Your task to perform on an android device: open app "Expedia: Hotels, Flights & Car" Image 0: 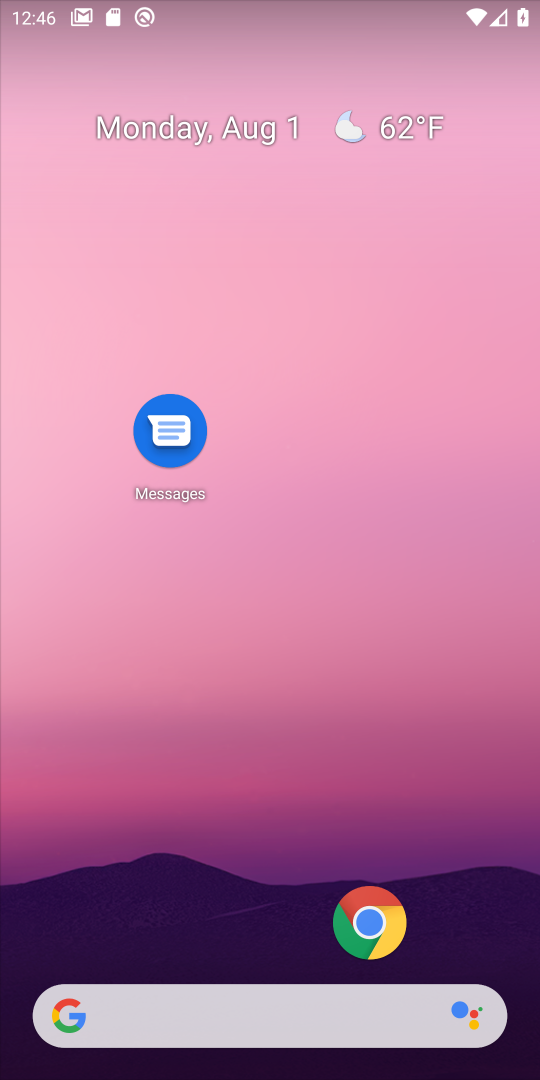
Step 0: drag from (229, 926) to (275, 262)
Your task to perform on an android device: open app "Expedia: Hotels, Flights & Car" Image 1: 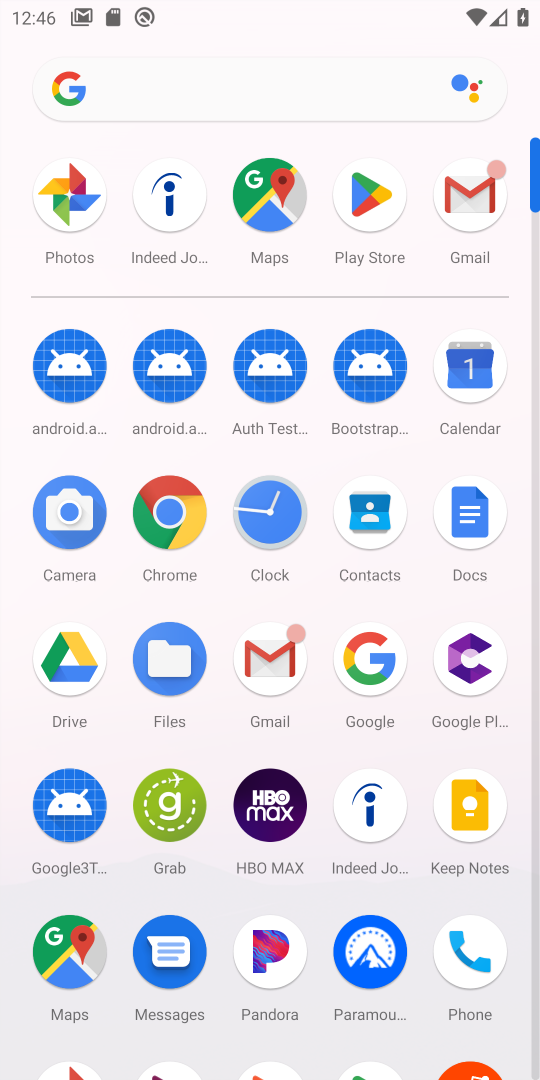
Step 1: click (339, 227)
Your task to perform on an android device: open app "Expedia: Hotels, Flights & Car" Image 2: 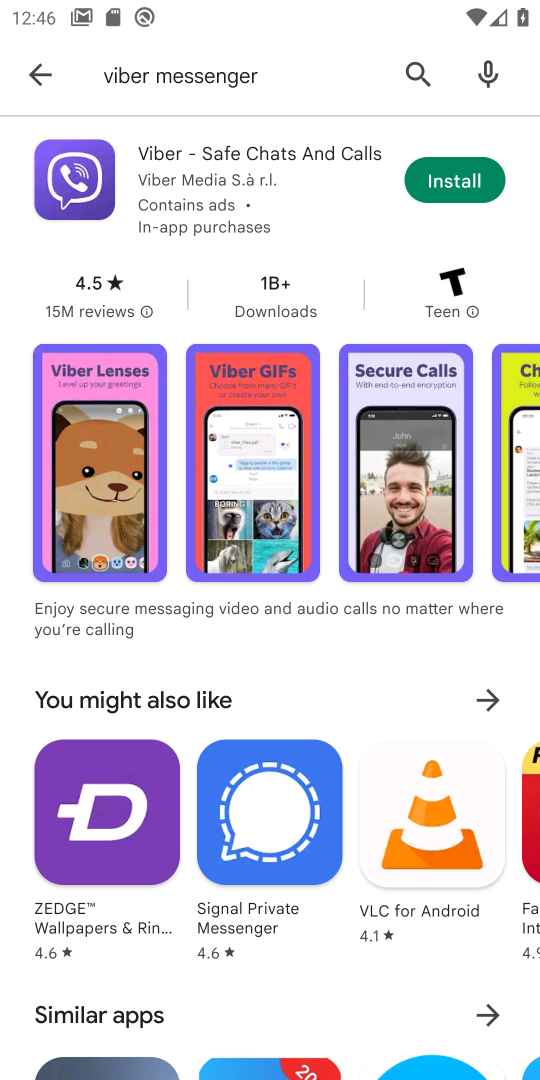
Step 2: click (424, 78)
Your task to perform on an android device: open app "Expedia: Hotels, Flights & Car" Image 3: 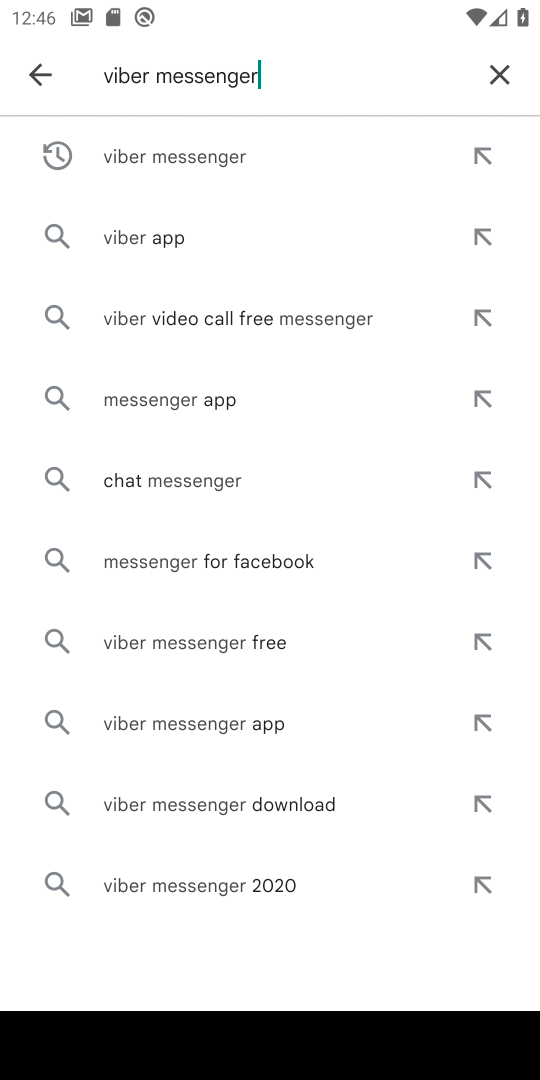
Step 3: click (485, 77)
Your task to perform on an android device: open app "Expedia: Hotels, Flights & Car" Image 4: 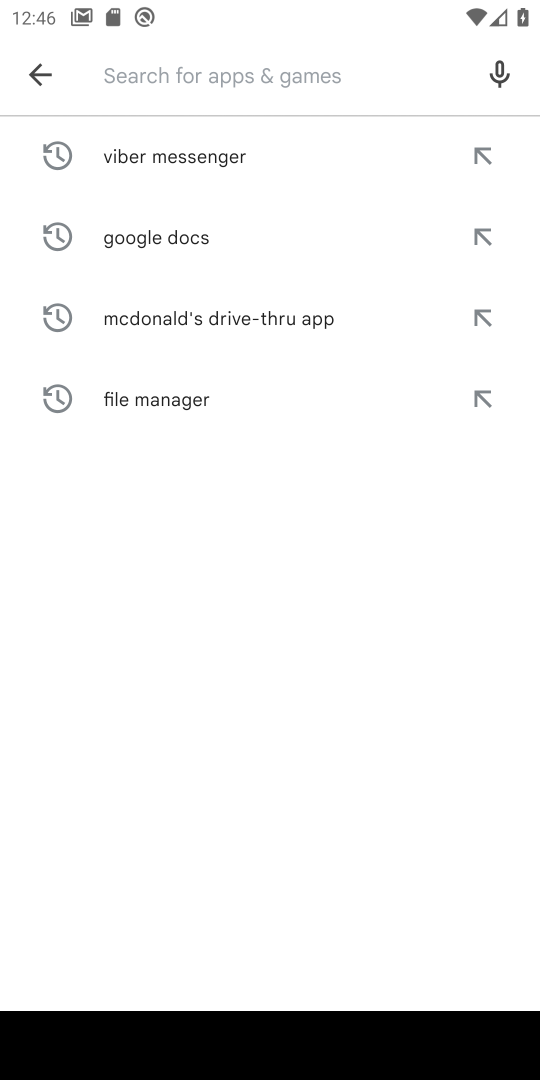
Step 4: type "Expedia: Hotels, Flights & Car"
Your task to perform on an android device: open app "Expedia: Hotels, Flights & Car" Image 5: 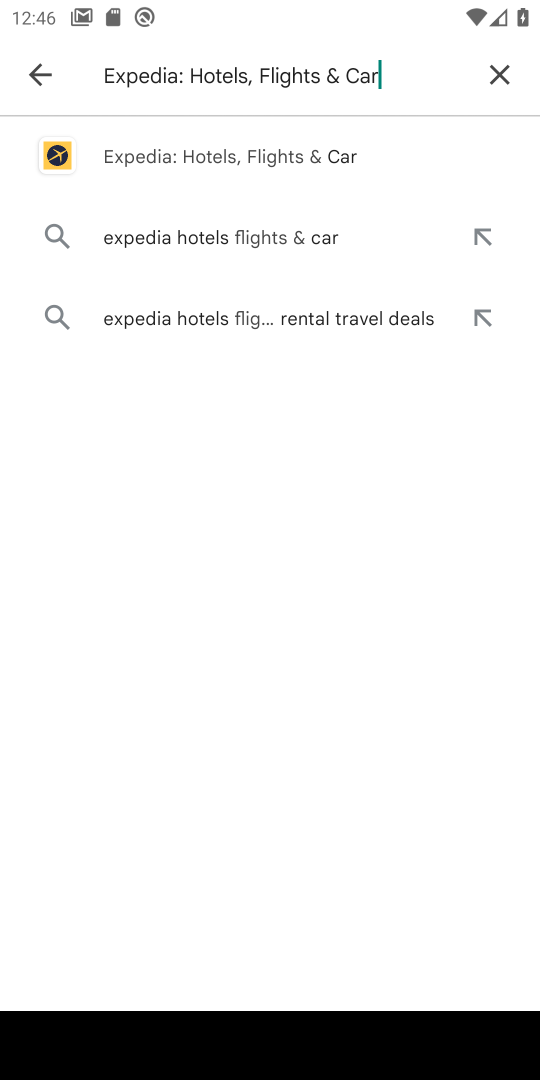
Step 5: type ""
Your task to perform on an android device: open app "Expedia: Hotels, Flights & Car" Image 6: 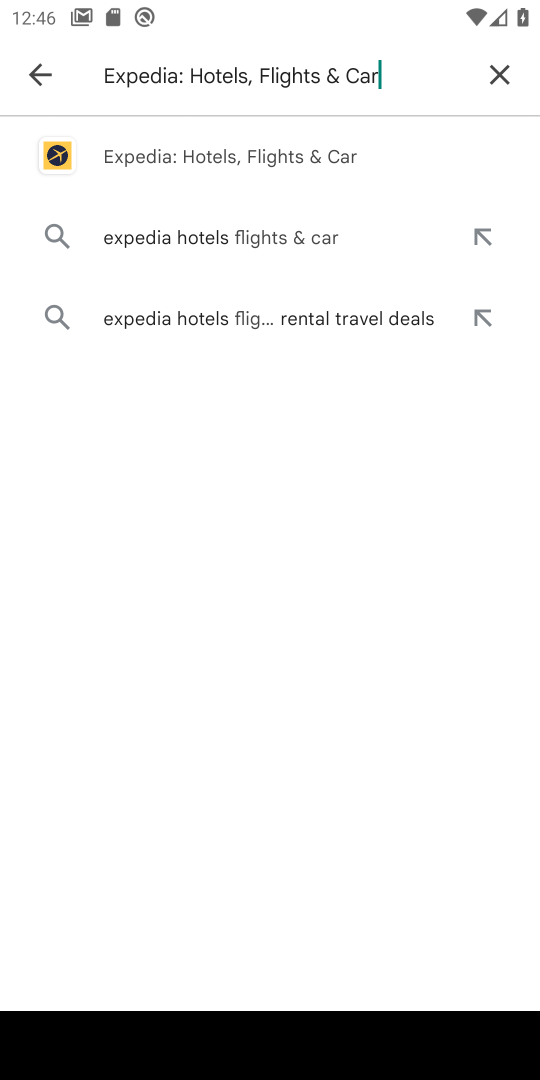
Step 6: click (209, 164)
Your task to perform on an android device: open app "Expedia: Hotels, Flights & Car" Image 7: 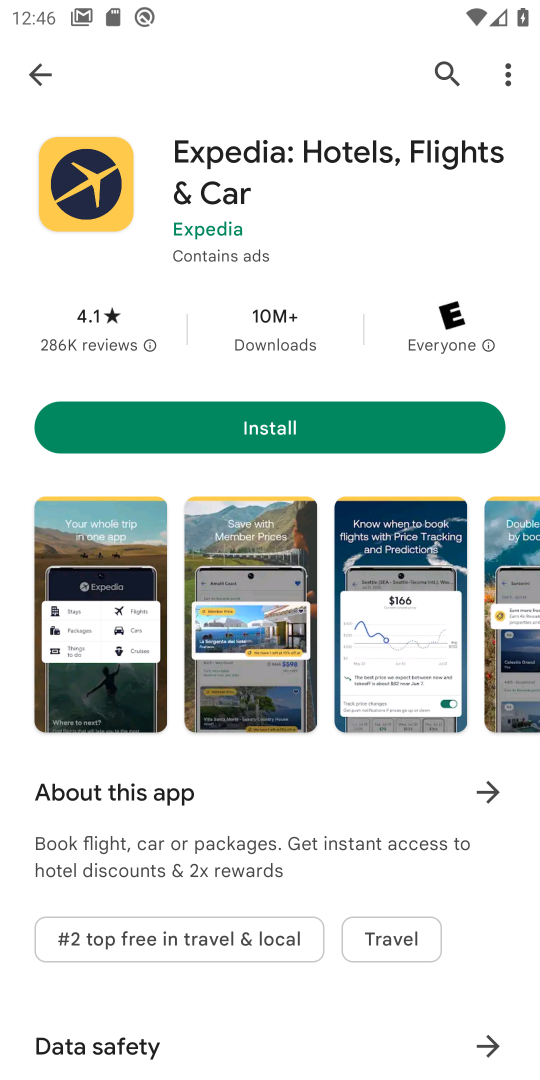
Step 7: task complete